Your task to perform on an android device: change notification settings in the gmail app Image 0: 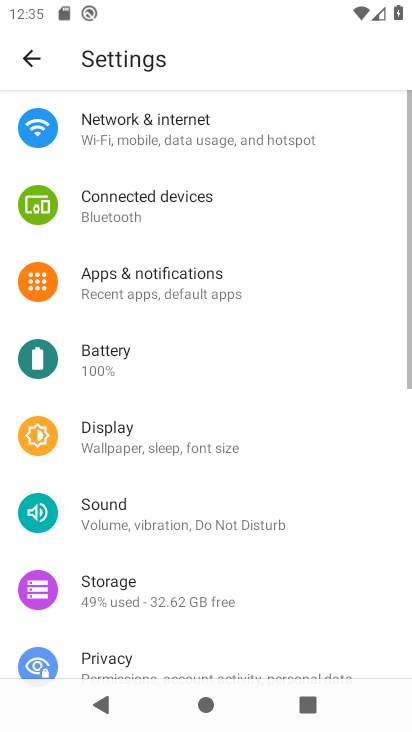
Step 0: press home button
Your task to perform on an android device: change notification settings in the gmail app Image 1: 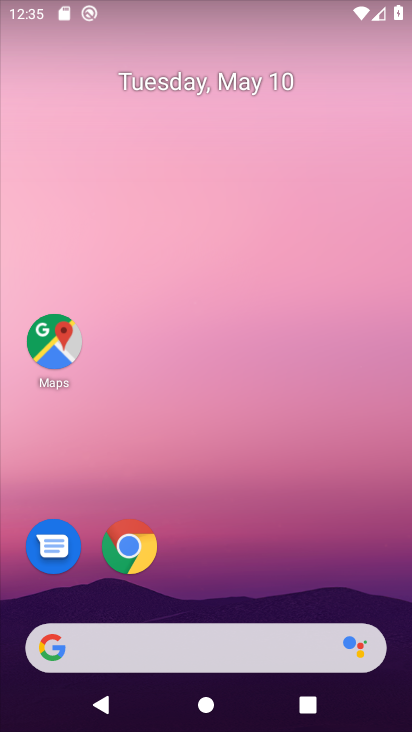
Step 1: drag from (376, 543) to (368, 83)
Your task to perform on an android device: change notification settings in the gmail app Image 2: 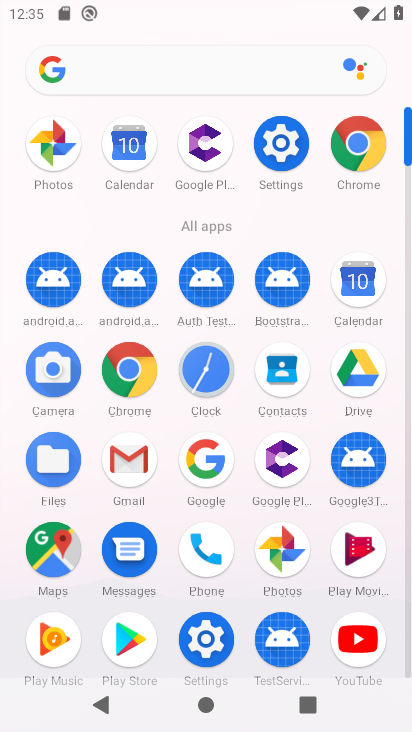
Step 2: click (118, 459)
Your task to perform on an android device: change notification settings in the gmail app Image 3: 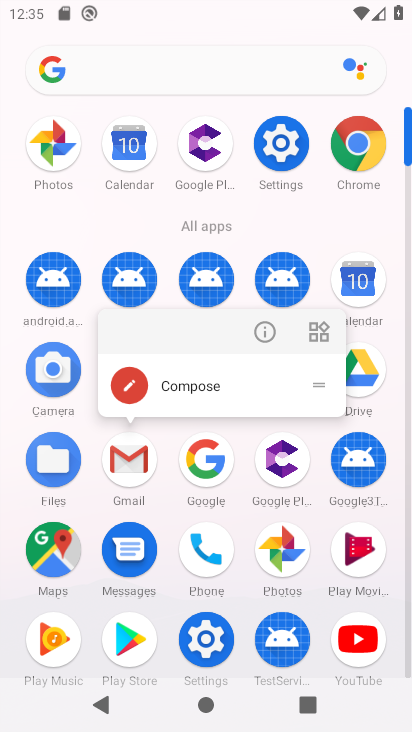
Step 3: click (276, 319)
Your task to perform on an android device: change notification settings in the gmail app Image 4: 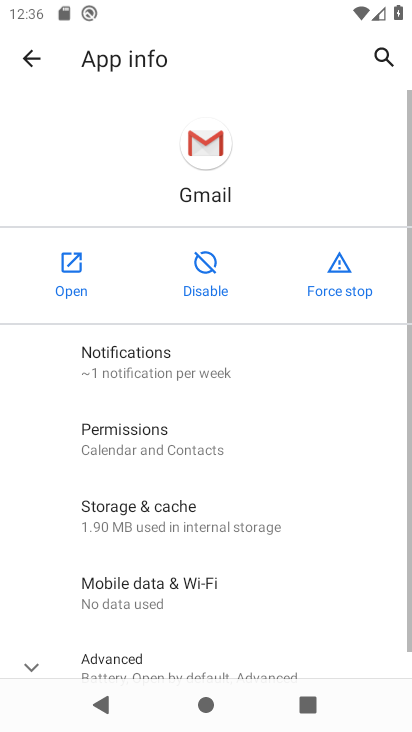
Step 4: click (192, 363)
Your task to perform on an android device: change notification settings in the gmail app Image 5: 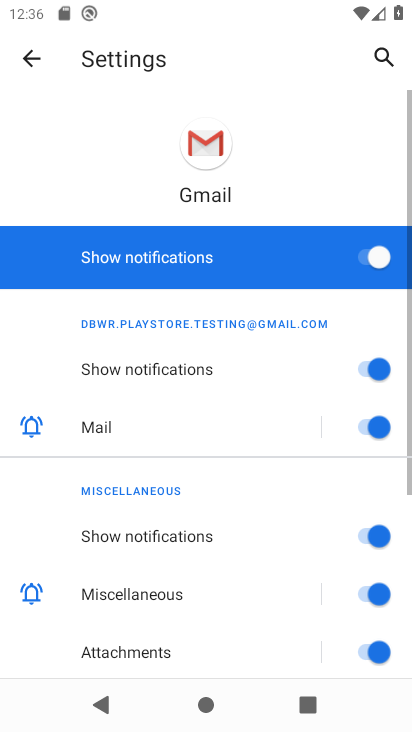
Step 5: click (360, 253)
Your task to perform on an android device: change notification settings in the gmail app Image 6: 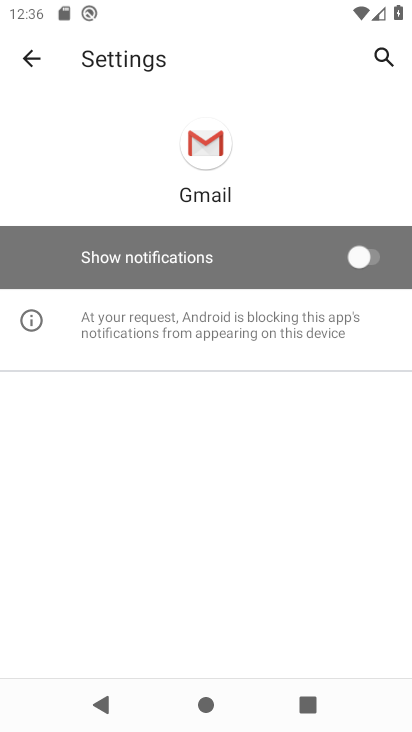
Step 6: task complete